Your task to perform on an android device: Open calendar and show me the first week of next month Image 0: 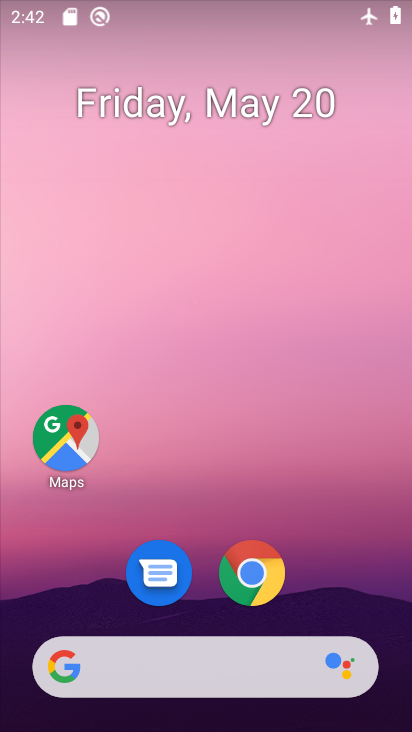
Step 0: drag from (189, 614) to (187, 225)
Your task to perform on an android device: Open calendar and show me the first week of next month Image 1: 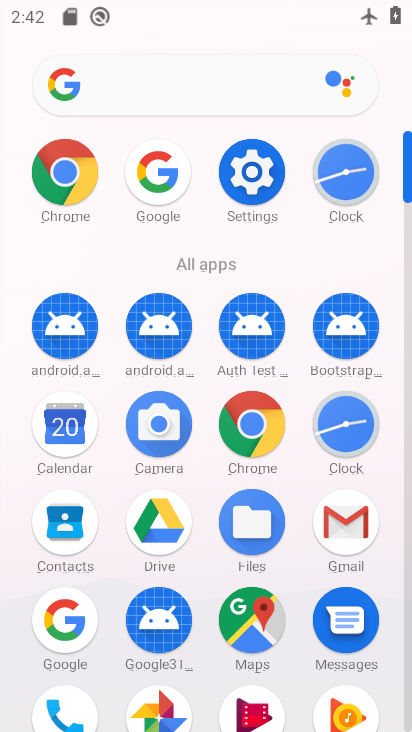
Step 1: click (73, 442)
Your task to perform on an android device: Open calendar and show me the first week of next month Image 2: 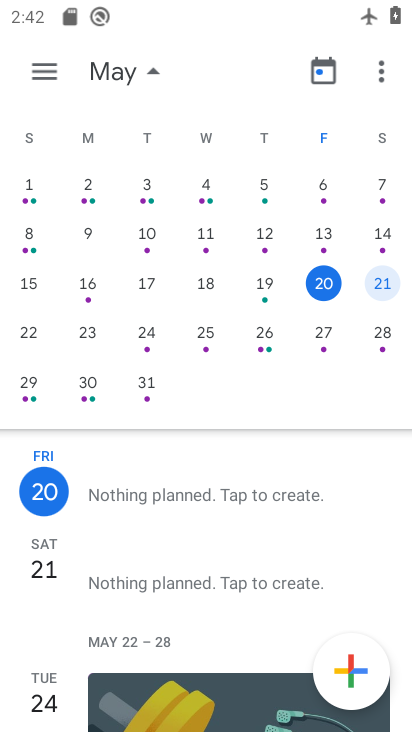
Step 2: task complete